Your task to perform on an android device: Do I have any events tomorrow? Image 0: 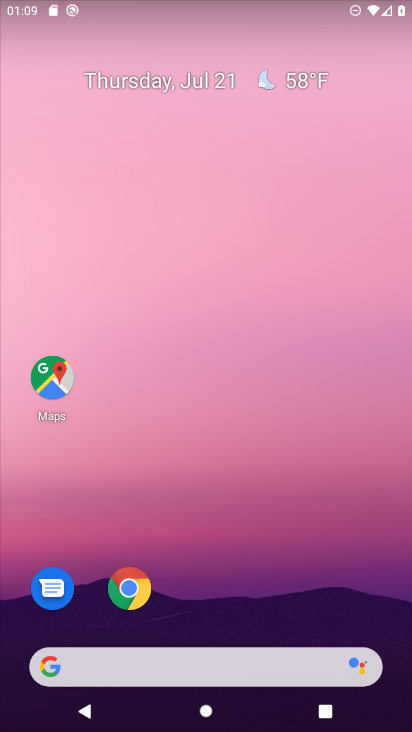
Step 0: drag from (209, 590) to (293, 5)
Your task to perform on an android device: Do I have any events tomorrow? Image 1: 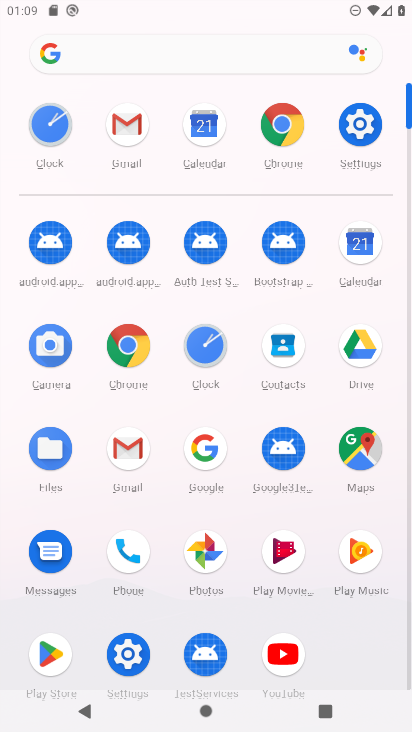
Step 1: click (360, 253)
Your task to perform on an android device: Do I have any events tomorrow? Image 2: 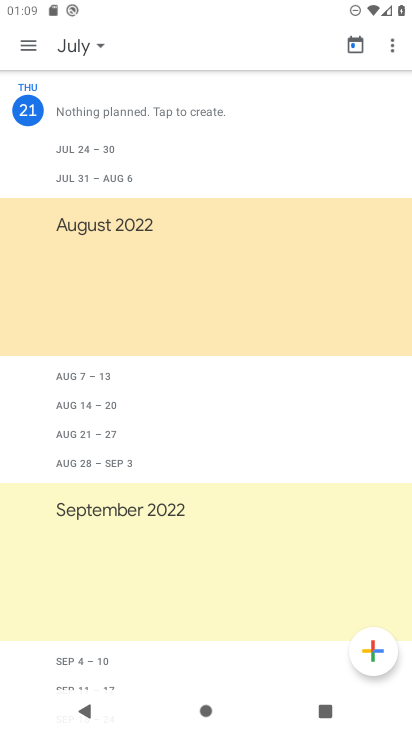
Step 2: click (23, 38)
Your task to perform on an android device: Do I have any events tomorrow? Image 3: 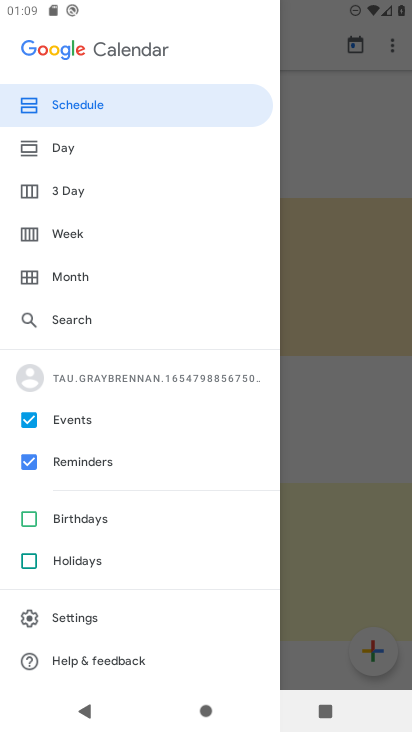
Step 3: click (72, 459)
Your task to perform on an android device: Do I have any events tomorrow? Image 4: 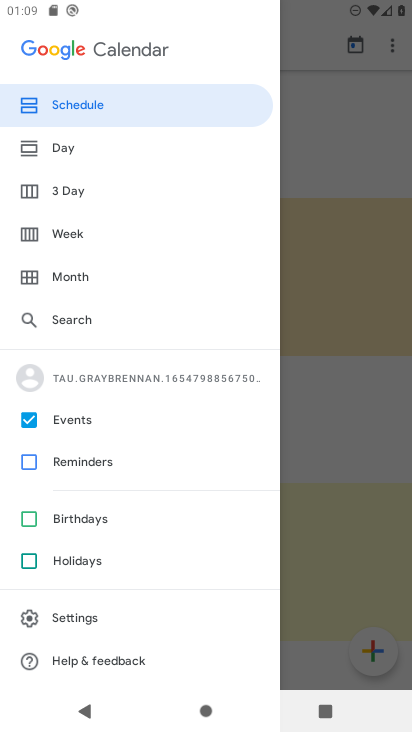
Step 4: click (67, 188)
Your task to perform on an android device: Do I have any events tomorrow? Image 5: 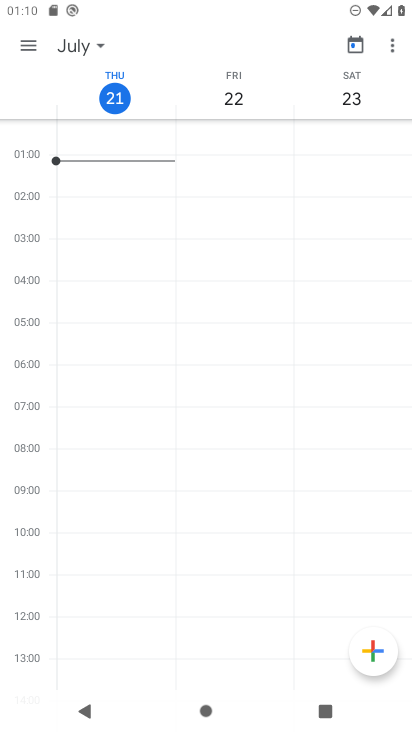
Step 5: task complete